Your task to perform on an android device: allow cookies in the chrome app Image 0: 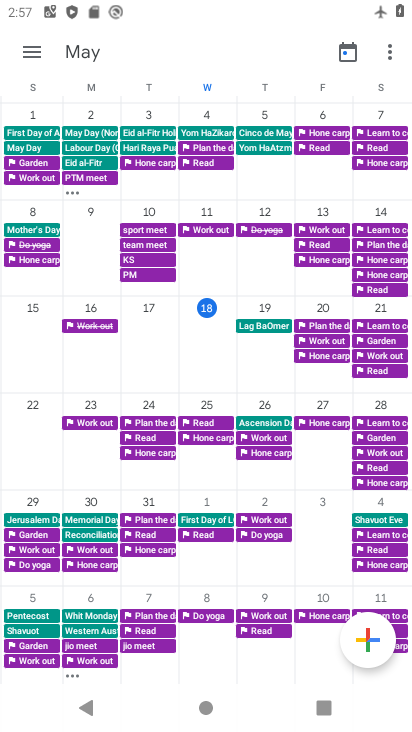
Step 0: press home button
Your task to perform on an android device: allow cookies in the chrome app Image 1: 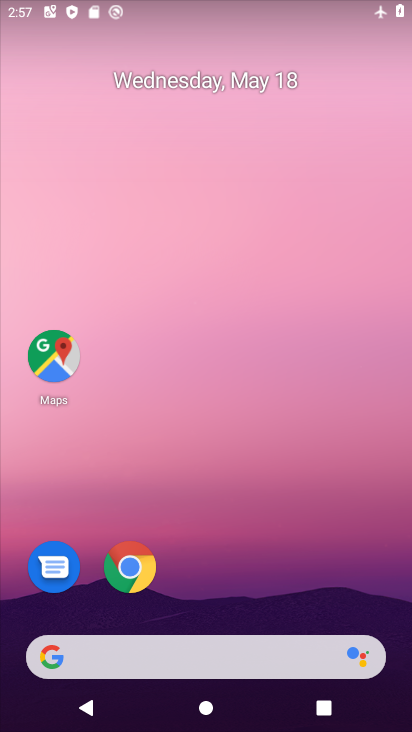
Step 1: click (261, 215)
Your task to perform on an android device: allow cookies in the chrome app Image 2: 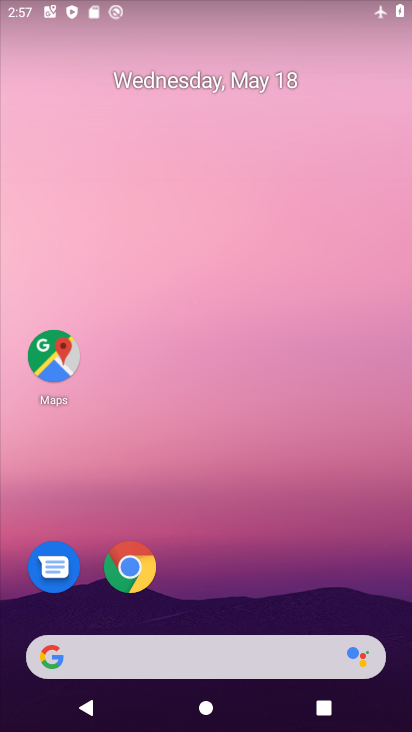
Step 2: drag from (178, 506) to (211, 241)
Your task to perform on an android device: allow cookies in the chrome app Image 3: 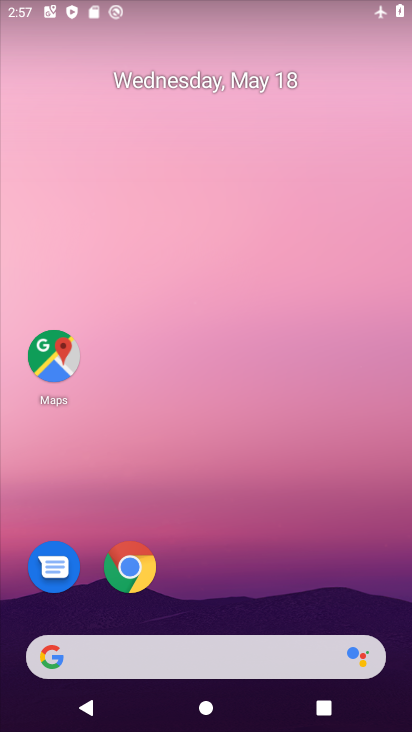
Step 3: drag from (194, 492) to (219, 251)
Your task to perform on an android device: allow cookies in the chrome app Image 4: 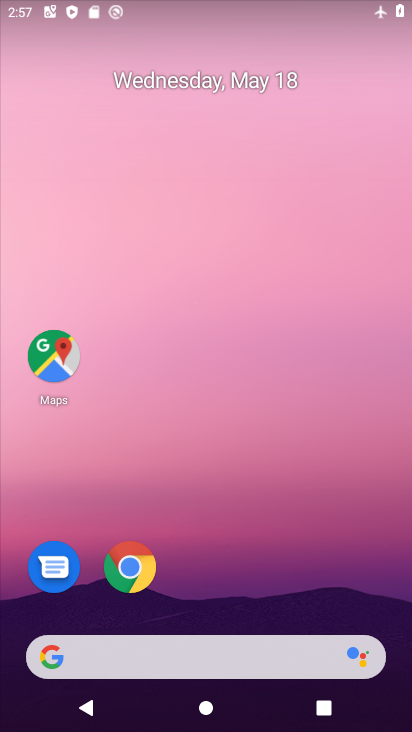
Step 4: drag from (223, 499) to (231, 231)
Your task to perform on an android device: allow cookies in the chrome app Image 5: 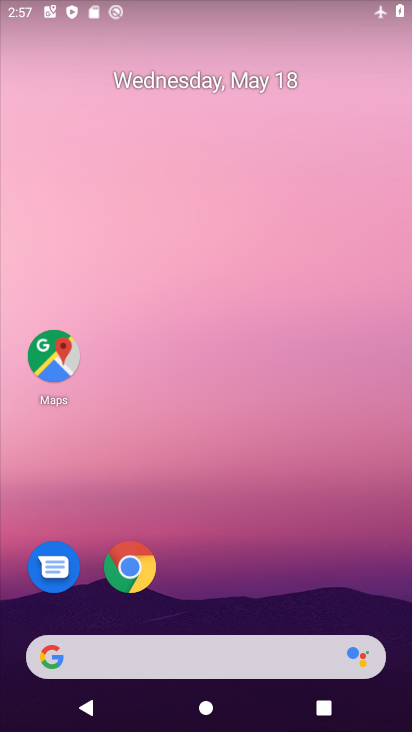
Step 5: drag from (224, 600) to (239, 239)
Your task to perform on an android device: allow cookies in the chrome app Image 6: 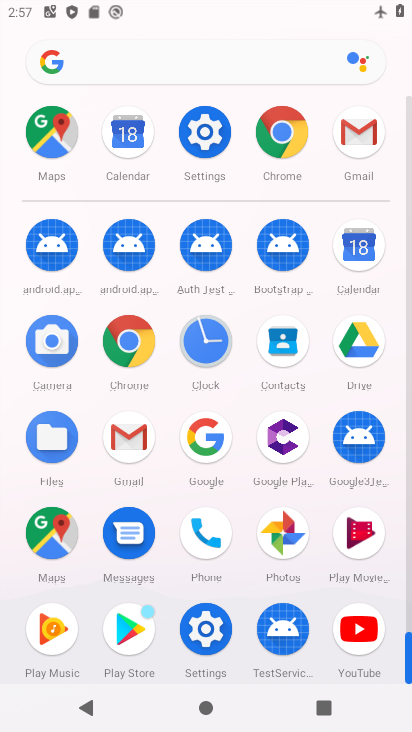
Step 6: click (282, 122)
Your task to perform on an android device: allow cookies in the chrome app Image 7: 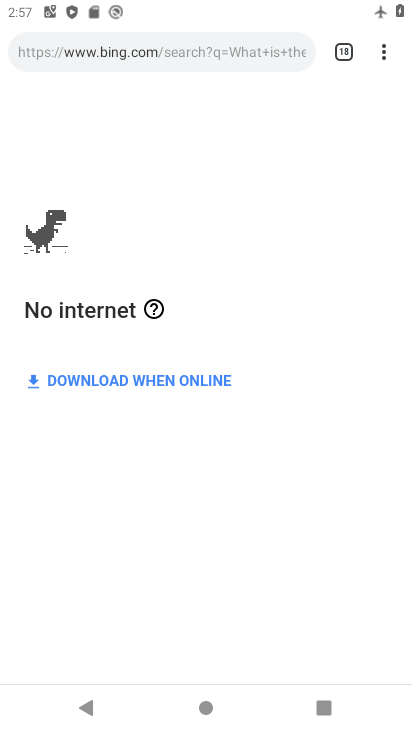
Step 7: click (376, 51)
Your task to perform on an android device: allow cookies in the chrome app Image 8: 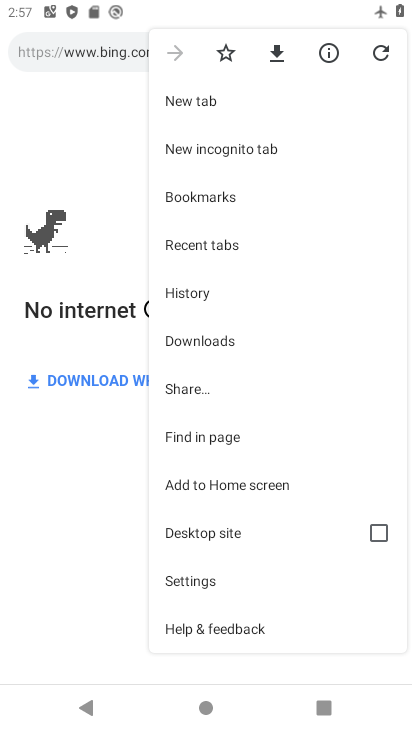
Step 8: click (226, 88)
Your task to perform on an android device: allow cookies in the chrome app Image 9: 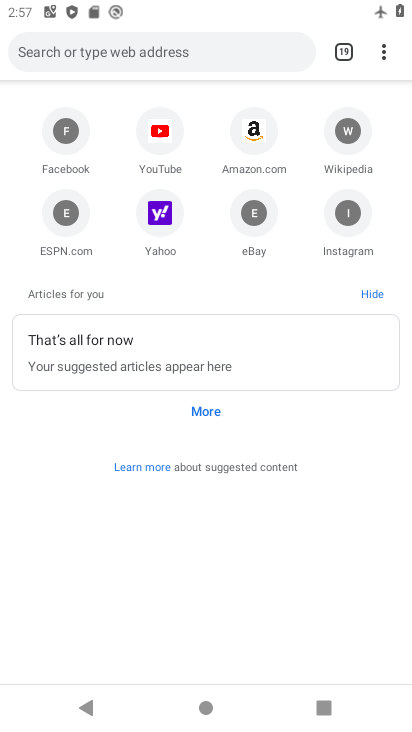
Step 9: click (377, 36)
Your task to perform on an android device: allow cookies in the chrome app Image 10: 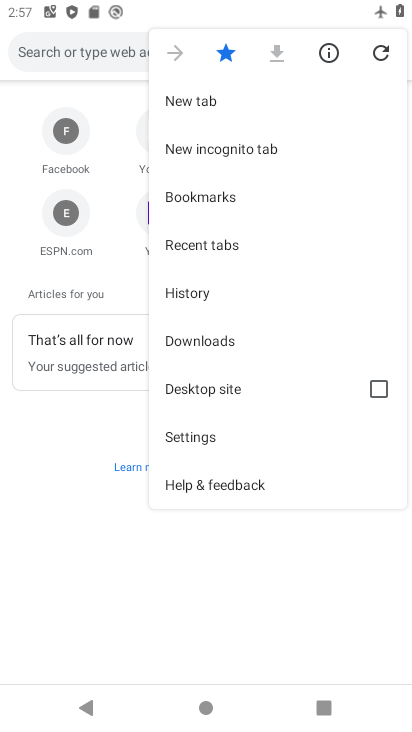
Step 10: click (232, 424)
Your task to perform on an android device: allow cookies in the chrome app Image 11: 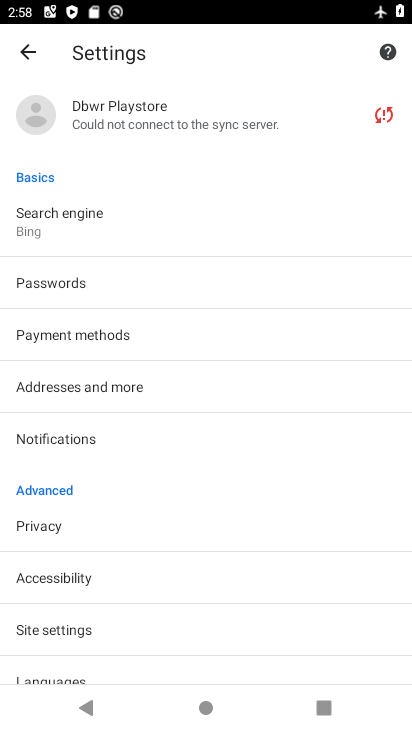
Step 11: click (93, 632)
Your task to perform on an android device: allow cookies in the chrome app Image 12: 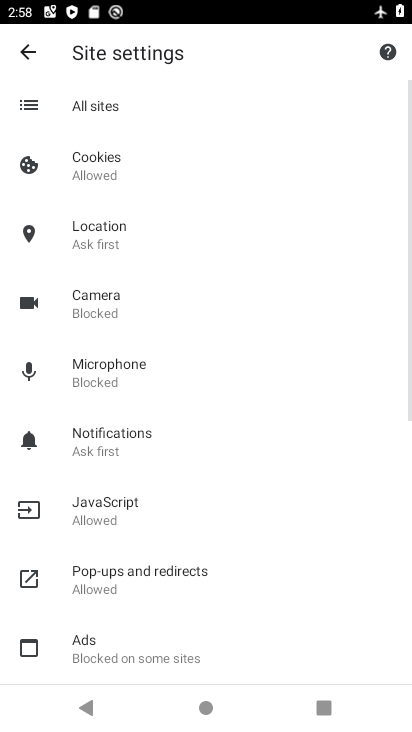
Step 12: click (110, 163)
Your task to perform on an android device: allow cookies in the chrome app Image 13: 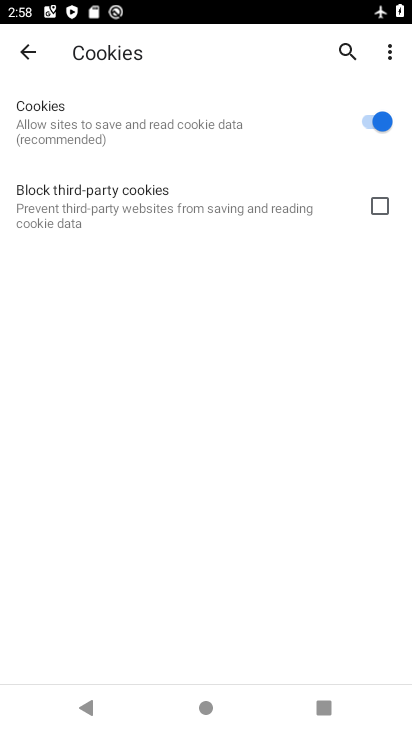
Step 13: task complete